Your task to perform on an android device: toggle location history Image 0: 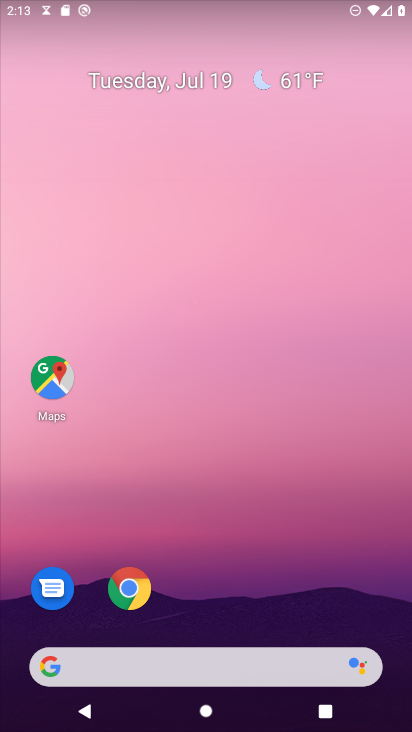
Step 0: drag from (285, 688) to (252, 205)
Your task to perform on an android device: toggle location history Image 1: 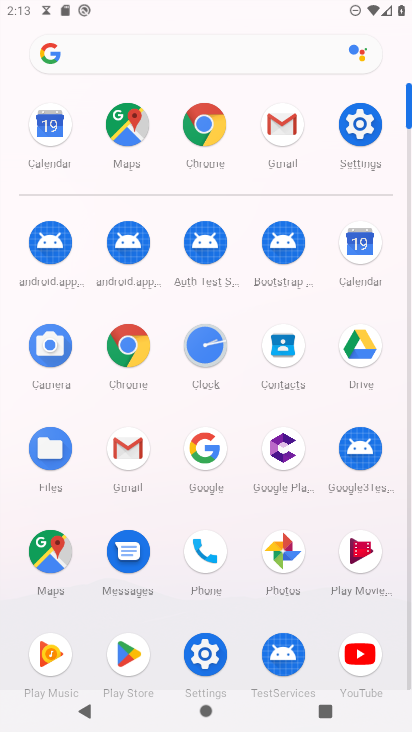
Step 1: click (354, 144)
Your task to perform on an android device: toggle location history Image 2: 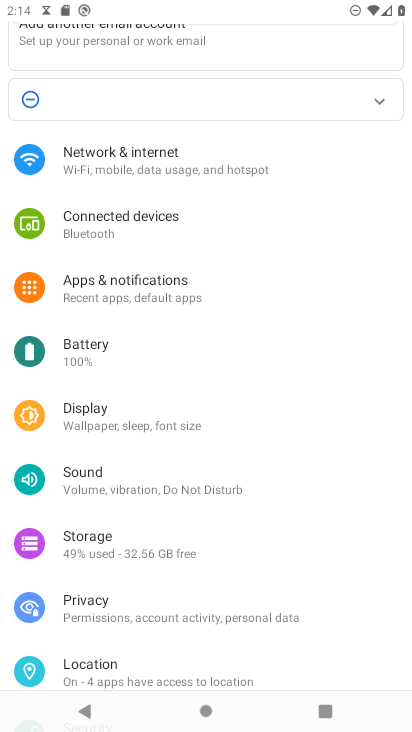
Step 2: click (134, 674)
Your task to perform on an android device: toggle location history Image 3: 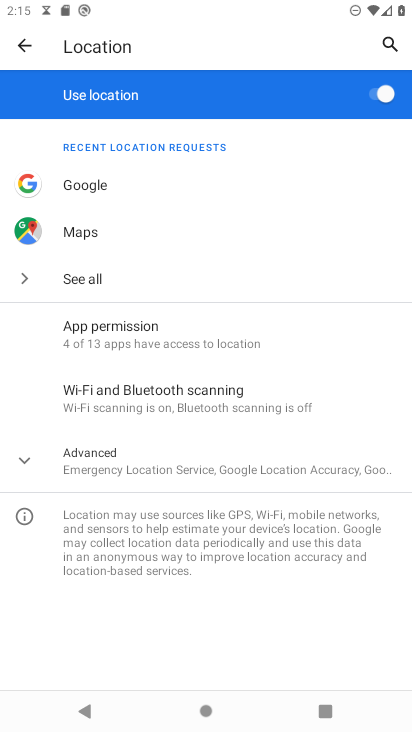
Step 3: click (38, 453)
Your task to perform on an android device: toggle location history Image 4: 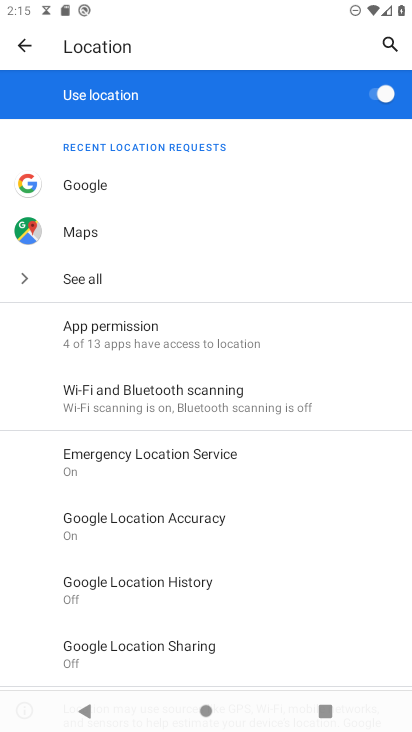
Step 4: click (187, 583)
Your task to perform on an android device: toggle location history Image 5: 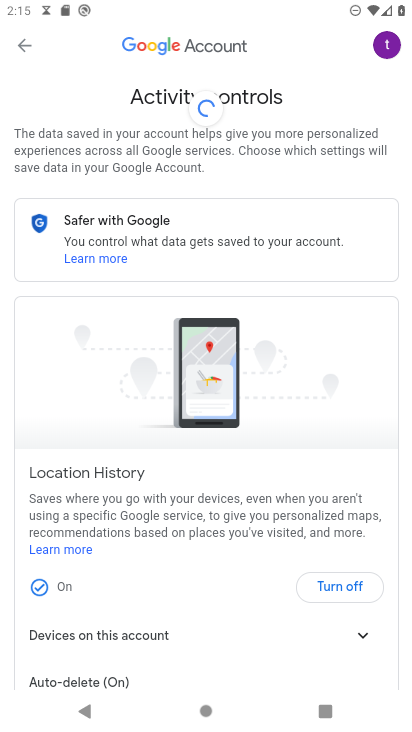
Step 5: task complete